Your task to perform on an android device: turn off improve location accuracy Image 0: 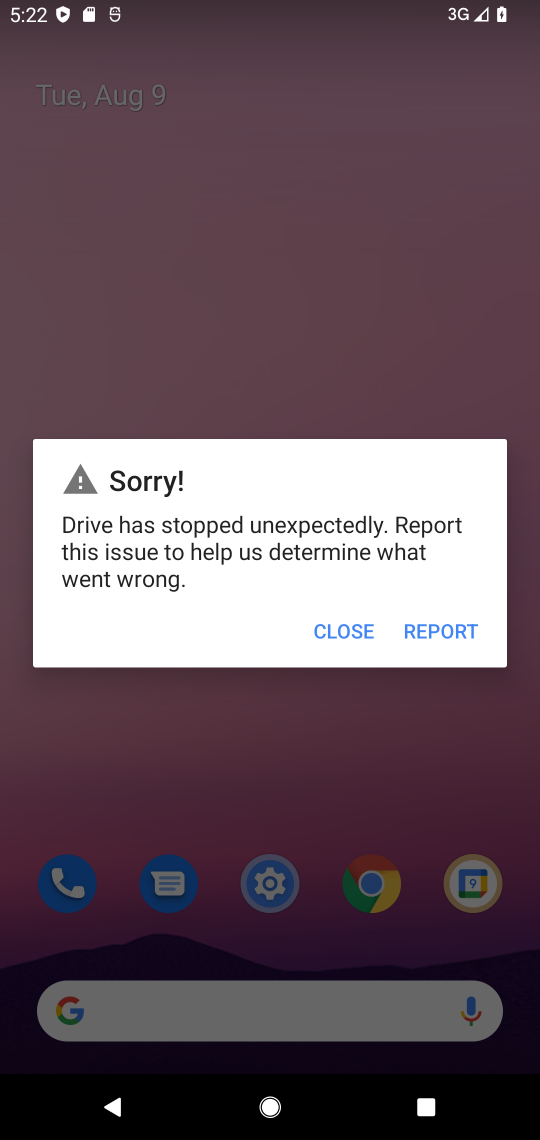
Step 0: click (358, 633)
Your task to perform on an android device: turn off improve location accuracy Image 1: 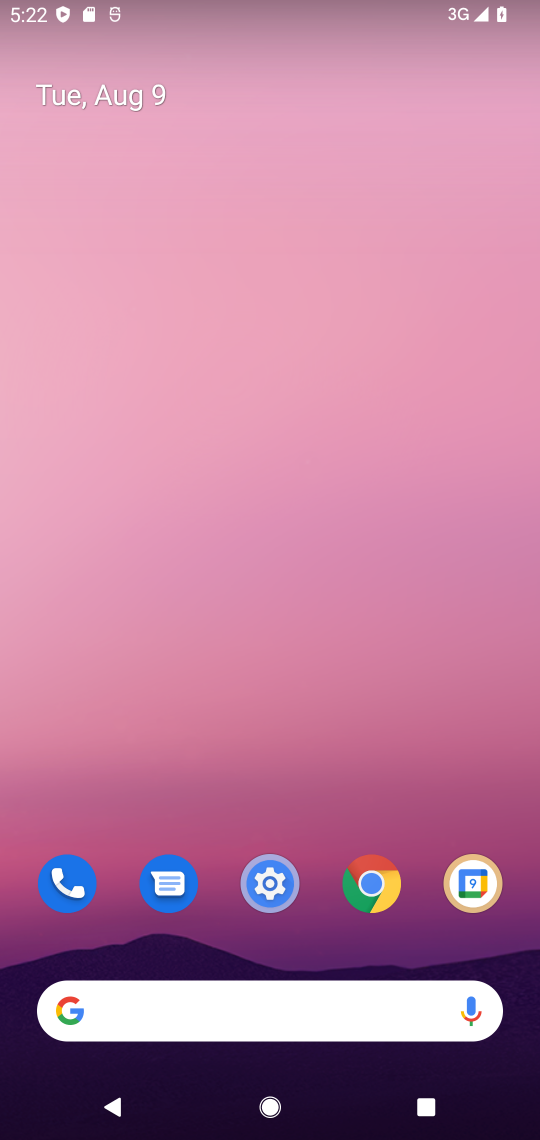
Step 1: click (279, 855)
Your task to perform on an android device: turn off improve location accuracy Image 2: 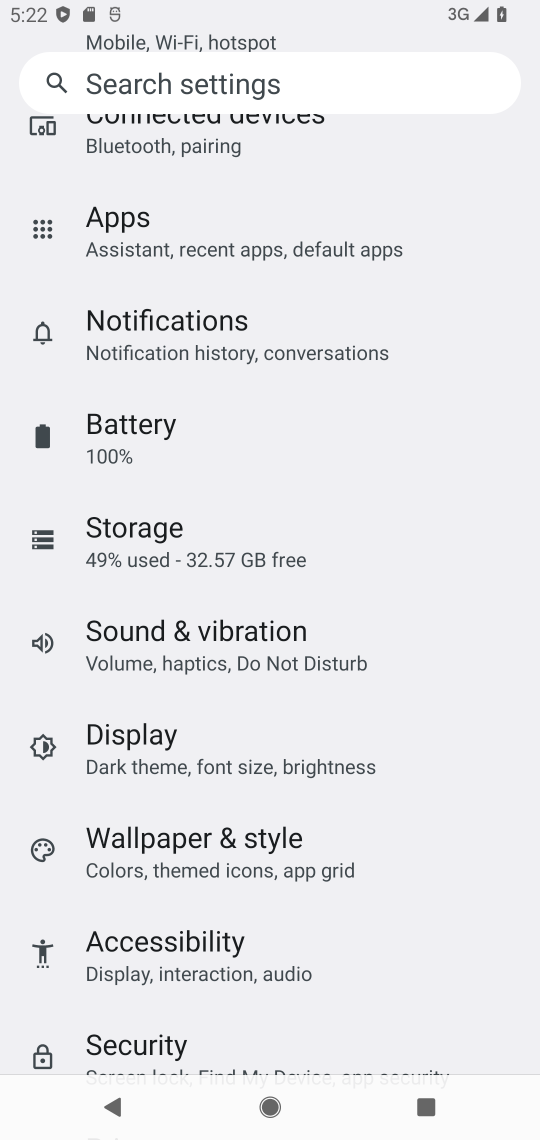
Step 2: drag from (234, 930) to (318, 384)
Your task to perform on an android device: turn off improve location accuracy Image 3: 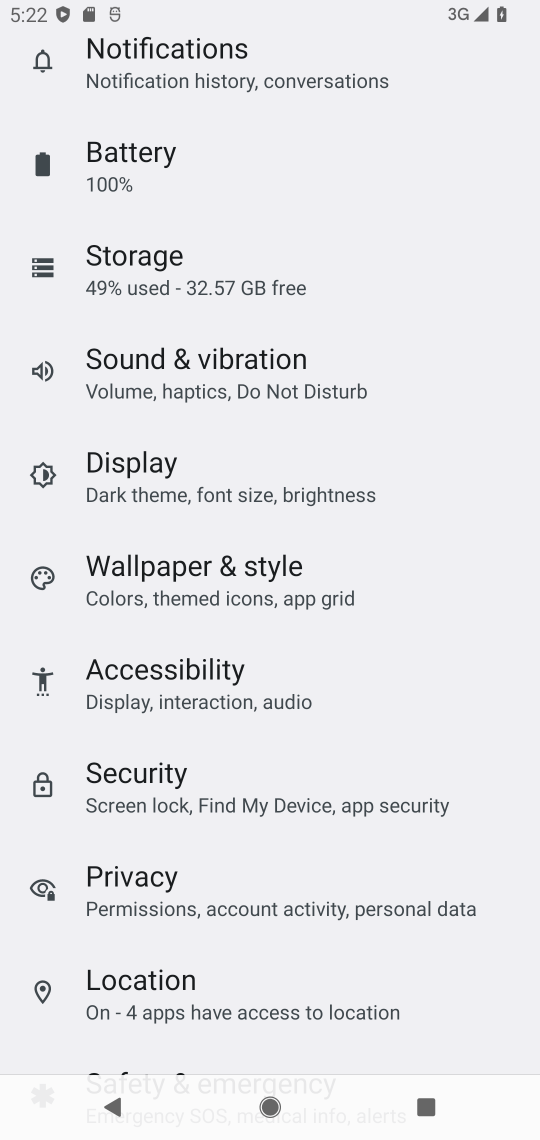
Step 3: click (202, 968)
Your task to perform on an android device: turn off improve location accuracy Image 4: 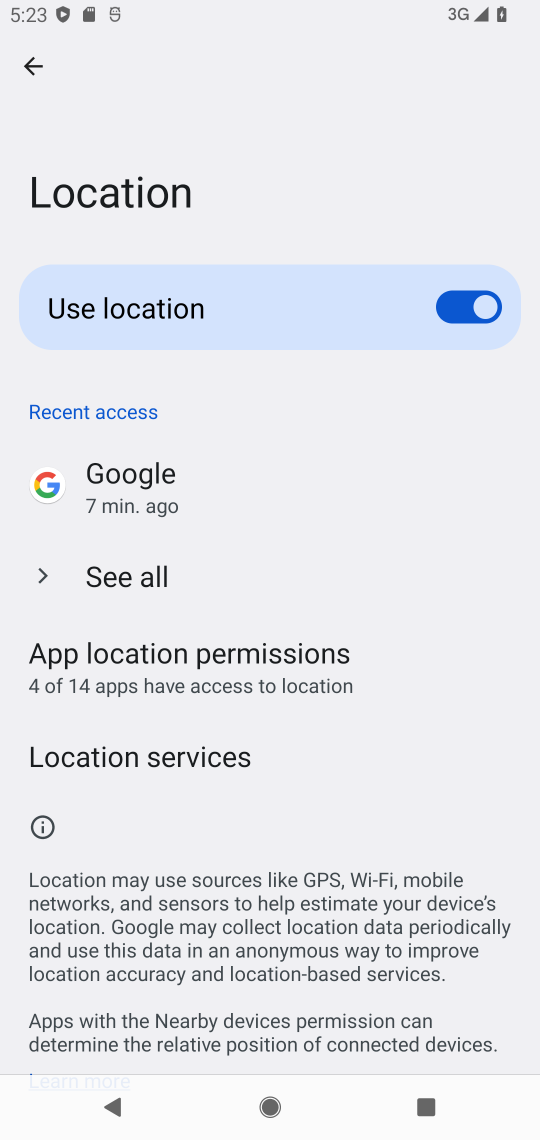
Step 4: click (177, 783)
Your task to perform on an android device: turn off improve location accuracy Image 5: 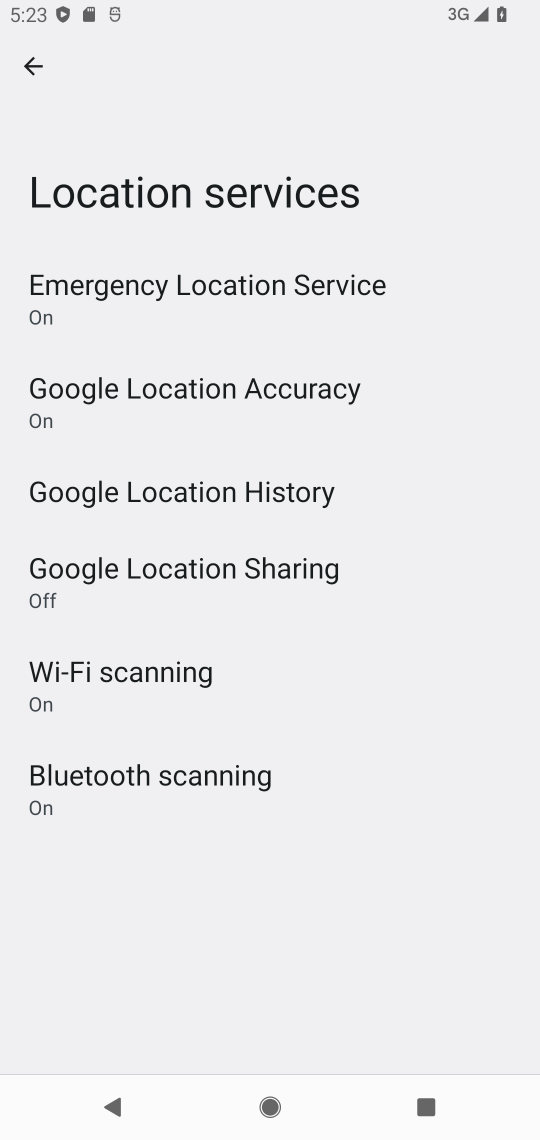
Step 5: click (331, 406)
Your task to perform on an android device: turn off improve location accuracy Image 6: 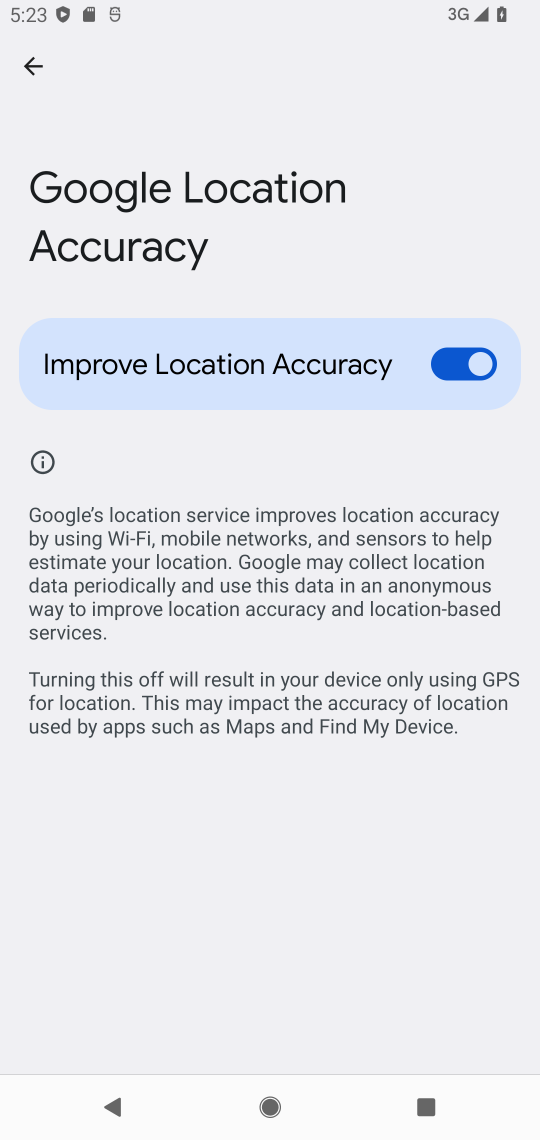
Step 6: click (425, 359)
Your task to perform on an android device: turn off improve location accuracy Image 7: 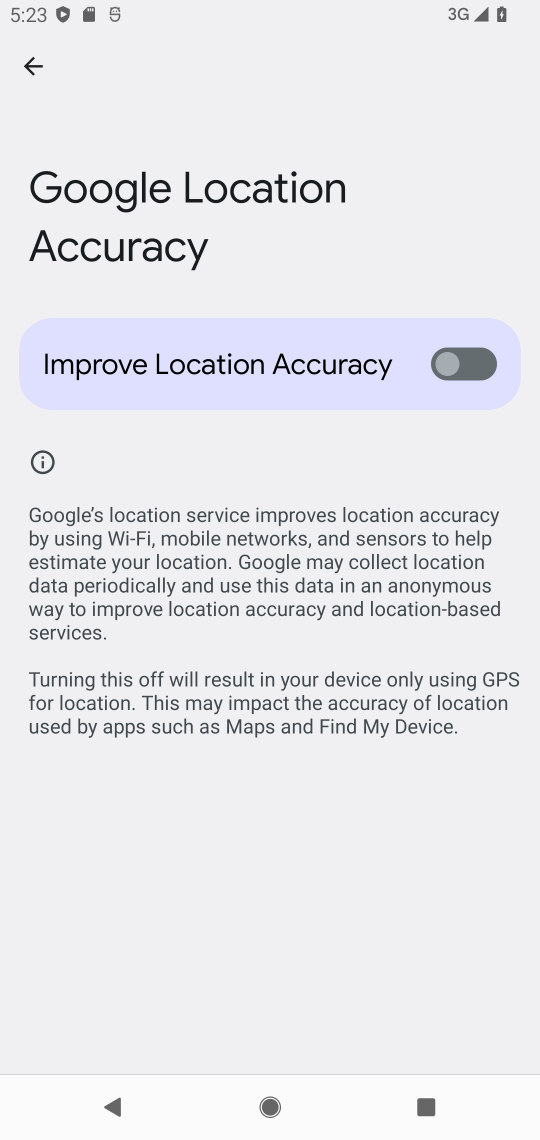
Step 7: task complete